Your task to perform on an android device: Search for Mexican restaurants on Maps Image 0: 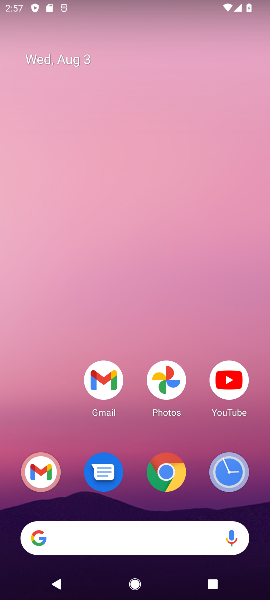
Step 0: drag from (187, 496) to (125, 51)
Your task to perform on an android device: Search for Mexican restaurants on Maps Image 1: 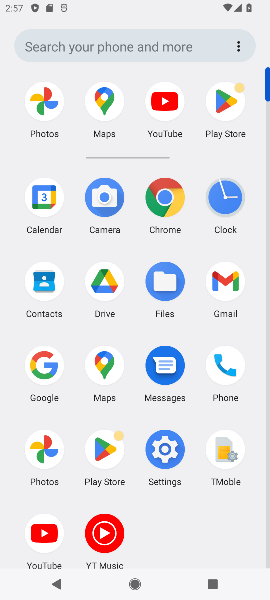
Step 1: click (105, 377)
Your task to perform on an android device: Search for Mexican restaurants on Maps Image 2: 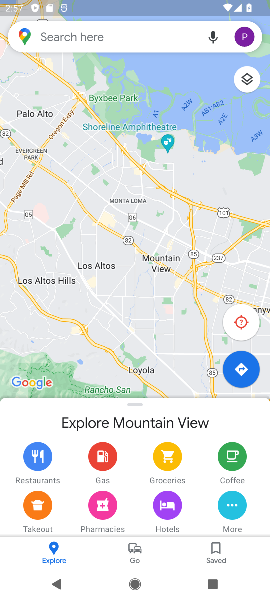
Step 2: click (95, 38)
Your task to perform on an android device: Search for Mexican restaurants on Maps Image 3: 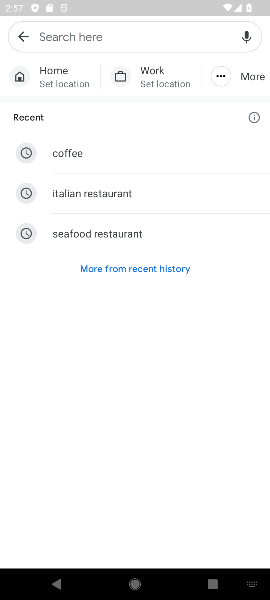
Step 3: type "Mexican restaurants"
Your task to perform on an android device: Search for Mexican restaurants on Maps Image 4: 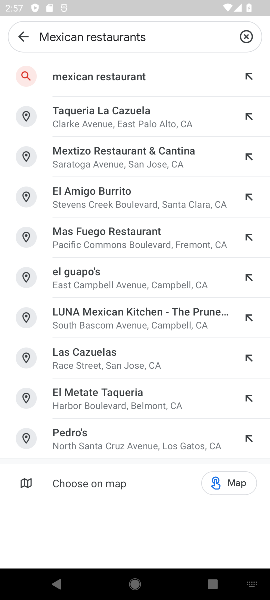
Step 4: click (100, 70)
Your task to perform on an android device: Search for Mexican restaurants on Maps Image 5: 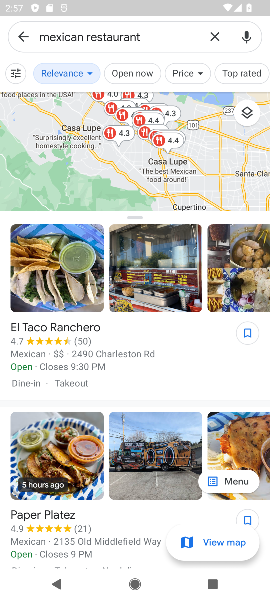
Step 5: task complete